Your task to perform on an android device: Open Android settings Image 0: 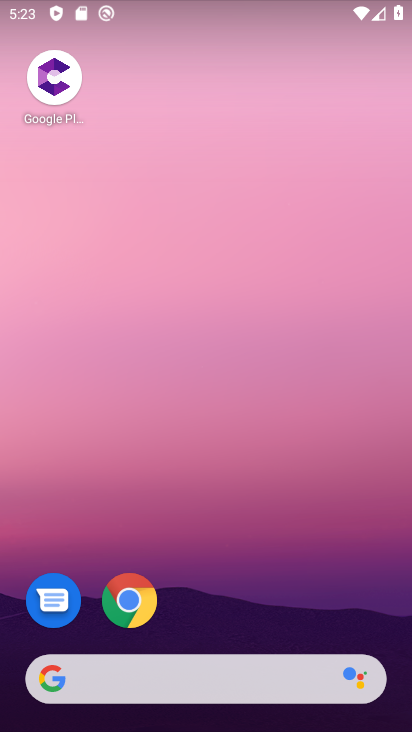
Step 0: drag from (215, 631) to (295, 133)
Your task to perform on an android device: Open Android settings Image 1: 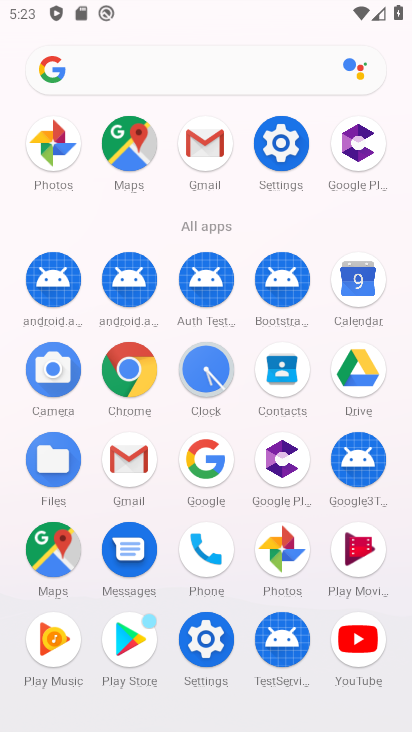
Step 1: click (211, 654)
Your task to perform on an android device: Open Android settings Image 2: 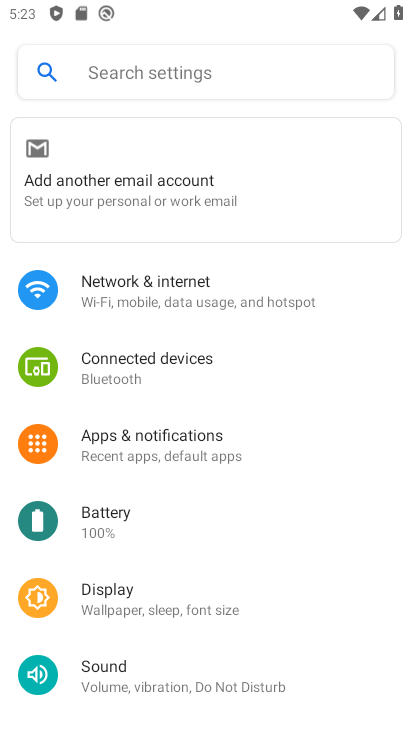
Step 2: drag from (196, 607) to (258, 156)
Your task to perform on an android device: Open Android settings Image 3: 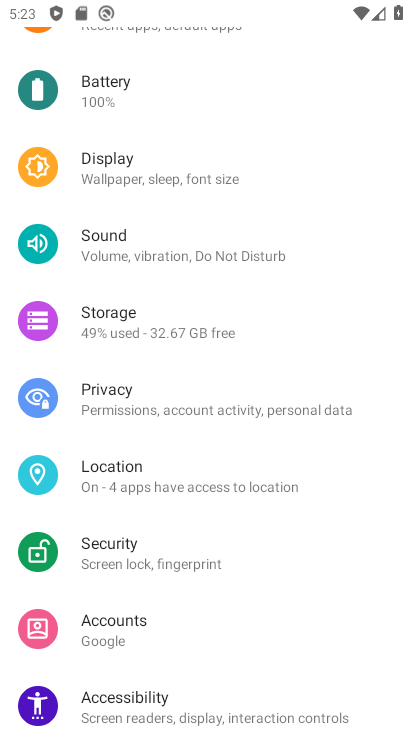
Step 3: drag from (151, 664) to (206, 313)
Your task to perform on an android device: Open Android settings Image 4: 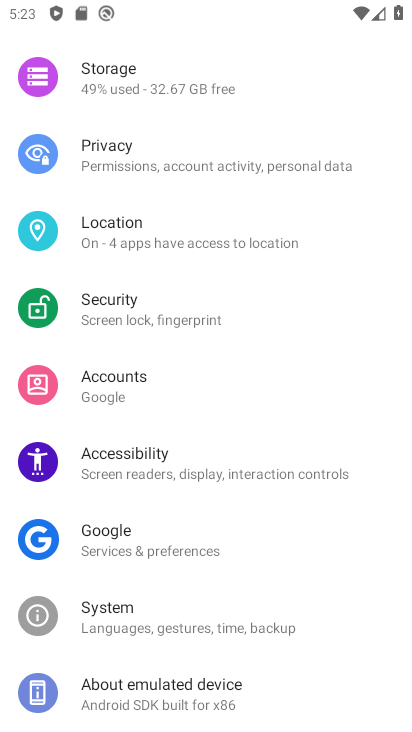
Step 4: drag from (162, 692) to (237, 222)
Your task to perform on an android device: Open Android settings Image 5: 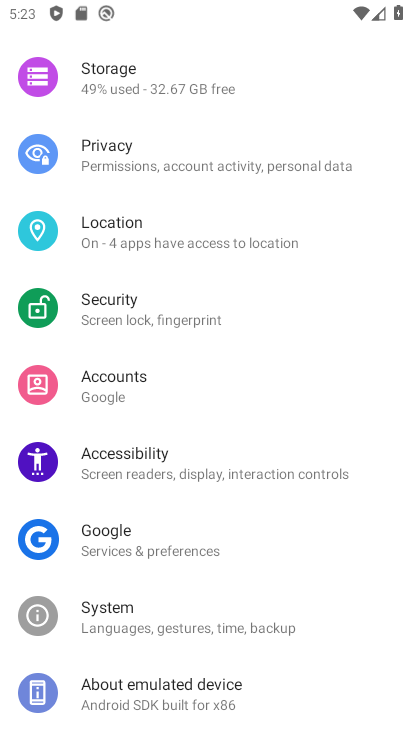
Step 5: click (144, 677)
Your task to perform on an android device: Open Android settings Image 6: 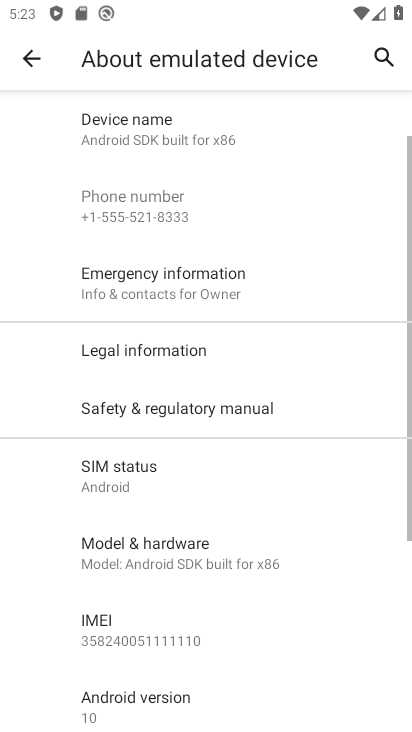
Step 6: drag from (142, 658) to (204, 308)
Your task to perform on an android device: Open Android settings Image 7: 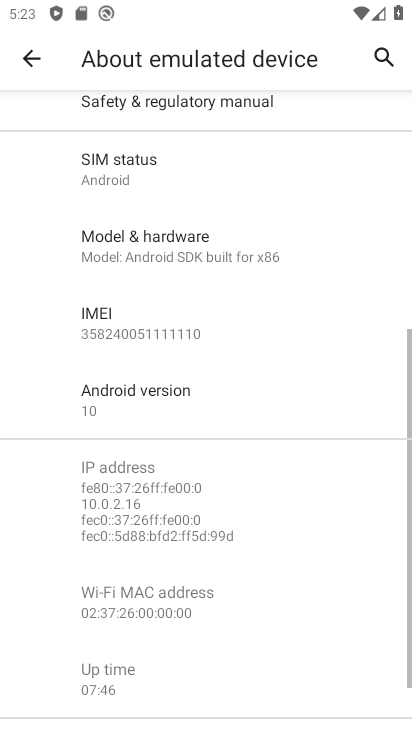
Step 7: click (118, 655)
Your task to perform on an android device: Open Android settings Image 8: 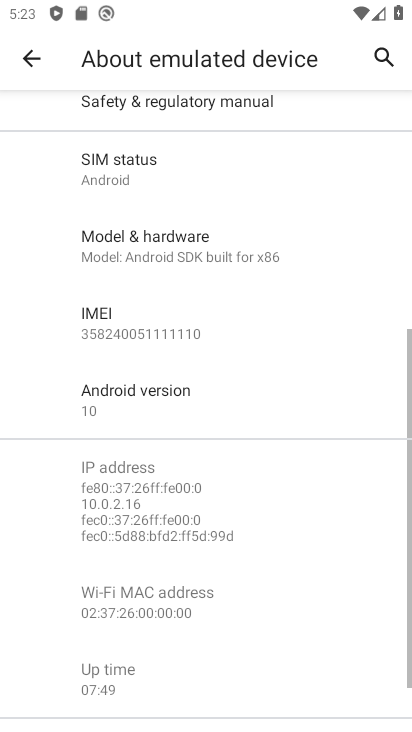
Step 8: task complete